Your task to perform on an android device: Open network settings Image 0: 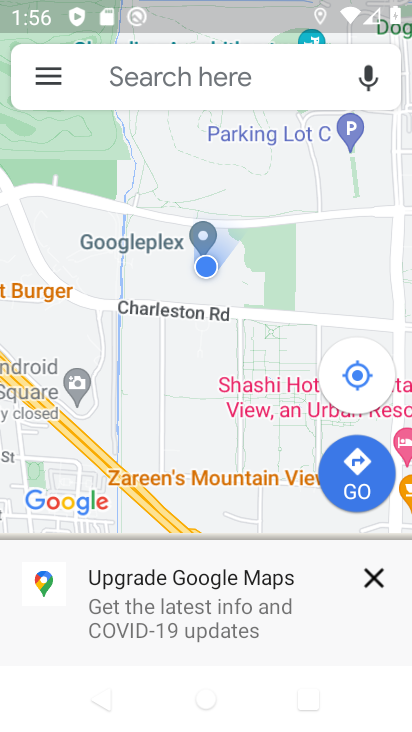
Step 0: drag from (217, 14) to (156, 612)
Your task to perform on an android device: Open network settings Image 1: 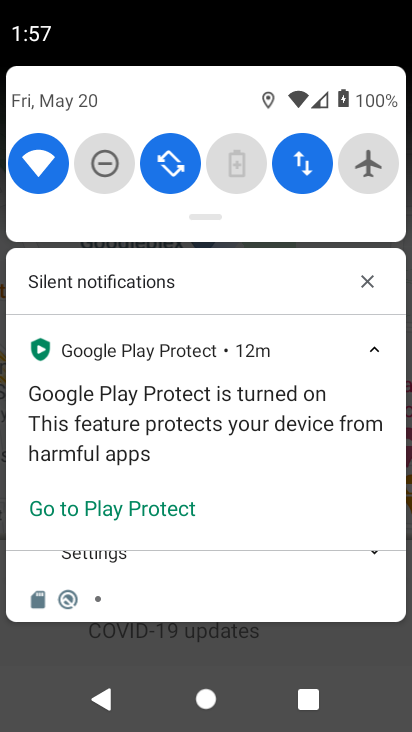
Step 1: click (315, 183)
Your task to perform on an android device: Open network settings Image 2: 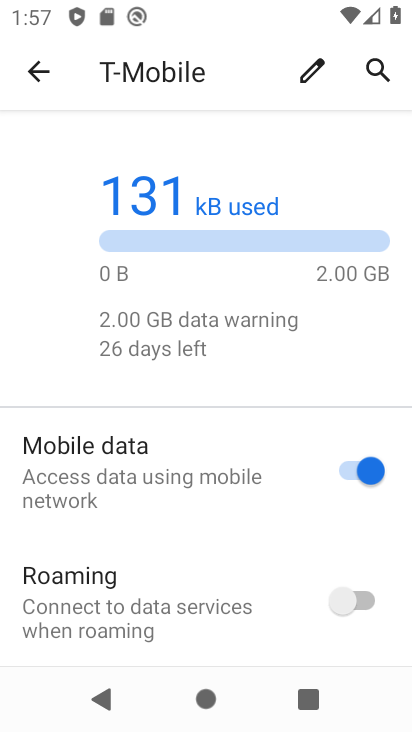
Step 2: task complete